Your task to perform on an android device: open sync settings in chrome Image 0: 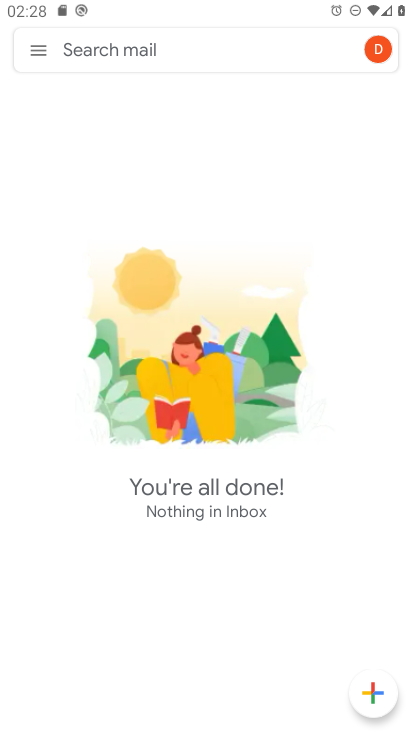
Step 0: press home button
Your task to perform on an android device: open sync settings in chrome Image 1: 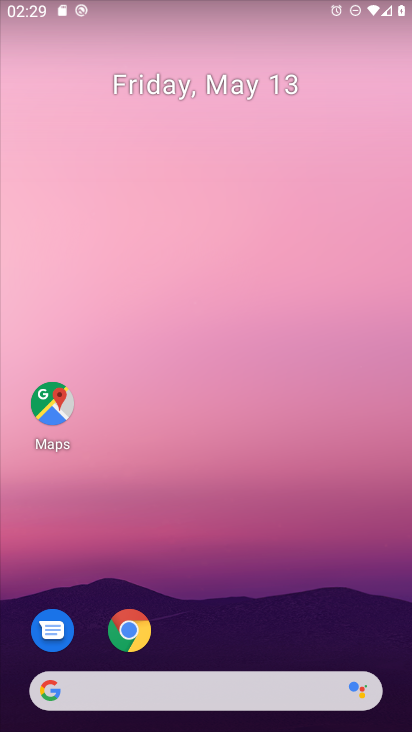
Step 1: drag from (261, 701) to (208, 199)
Your task to perform on an android device: open sync settings in chrome Image 2: 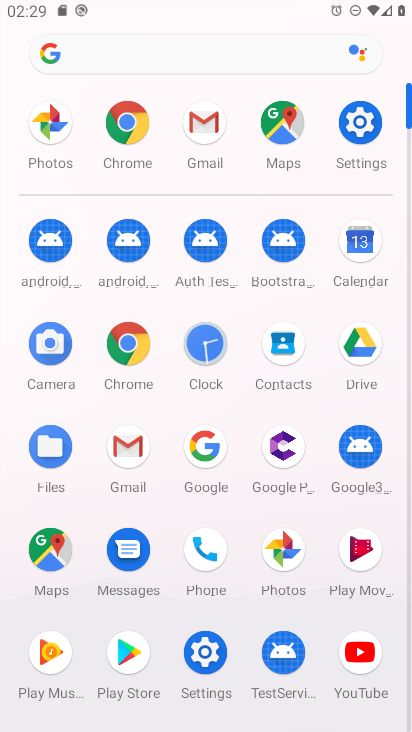
Step 2: click (139, 359)
Your task to perform on an android device: open sync settings in chrome Image 3: 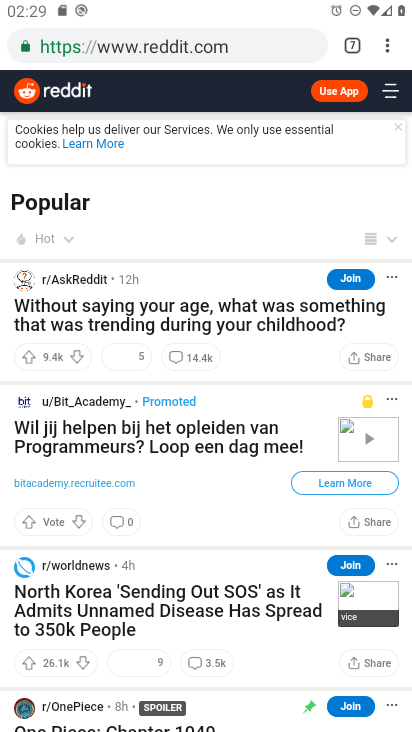
Step 3: click (390, 45)
Your task to perform on an android device: open sync settings in chrome Image 4: 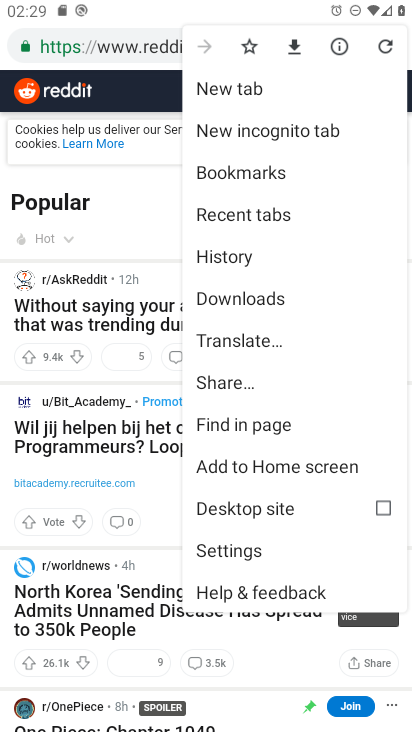
Step 4: click (244, 547)
Your task to perform on an android device: open sync settings in chrome Image 5: 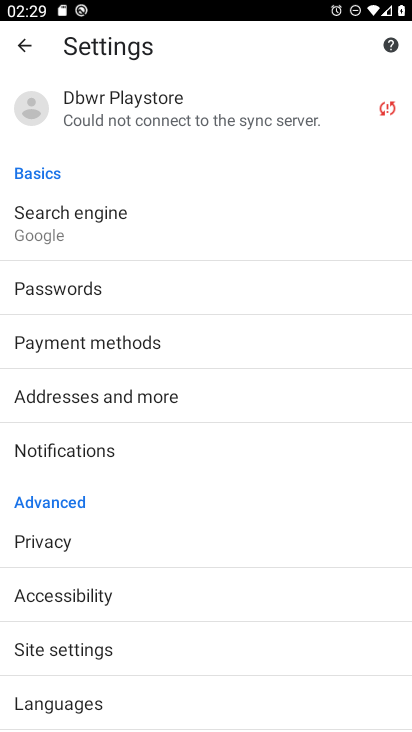
Step 5: drag from (129, 627) to (200, 497)
Your task to perform on an android device: open sync settings in chrome Image 6: 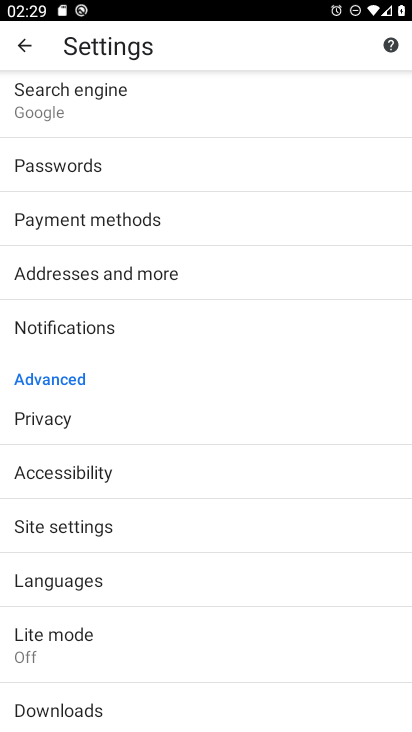
Step 6: click (116, 528)
Your task to perform on an android device: open sync settings in chrome Image 7: 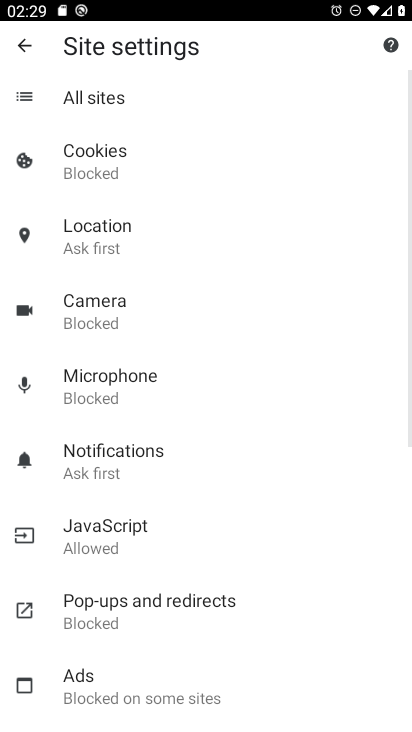
Step 7: drag from (153, 626) to (181, 500)
Your task to perform on an android device: open sync settings in chrome Image 8: 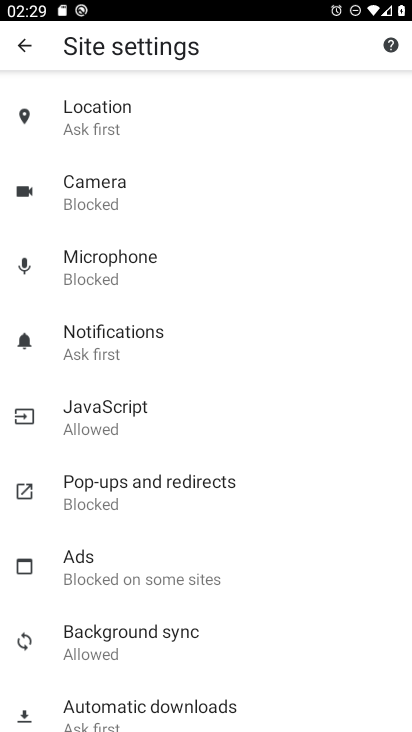
Step 8: click (168, 630)
Your task to perform on an android device: open sync settings in chrome Image 9: 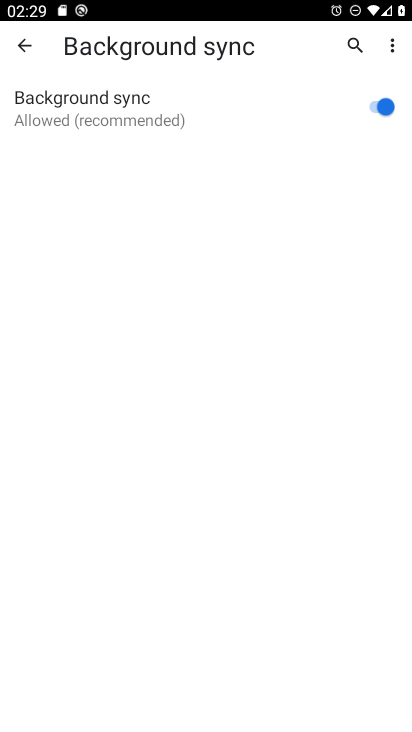
Step 9: task complete